Your task to perform on an android device: change the clock display to digital Image 0: 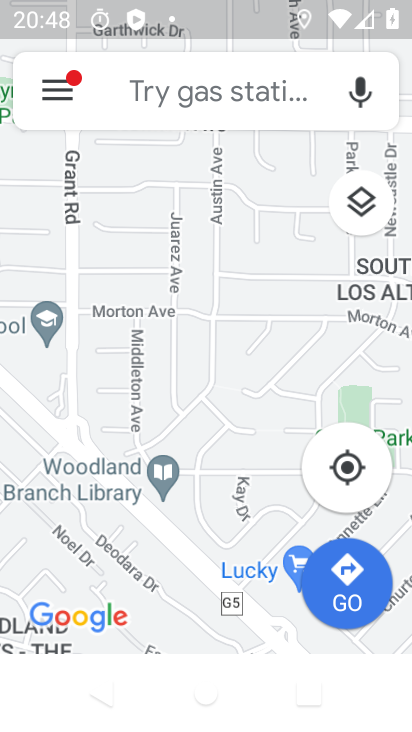
Step 0: press home button
Your task to perform on an android device: change the clock display to digital Image 1: 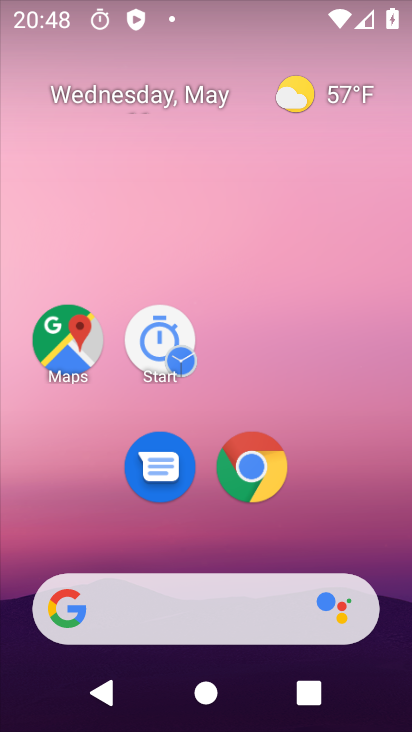
Step 1: drag from (287, 507) to (118, 0)
Your task to perform on an android device: change the clock display to digital Image 2: 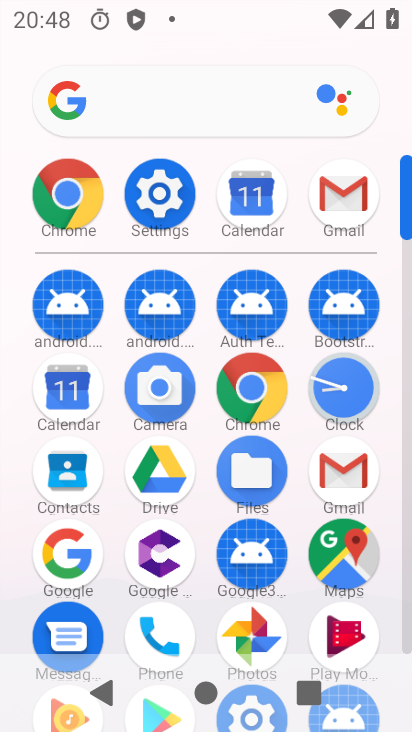
Step 2: click (342, 380)
Your task to perform on an android device: change the clock display to digital Image 3: 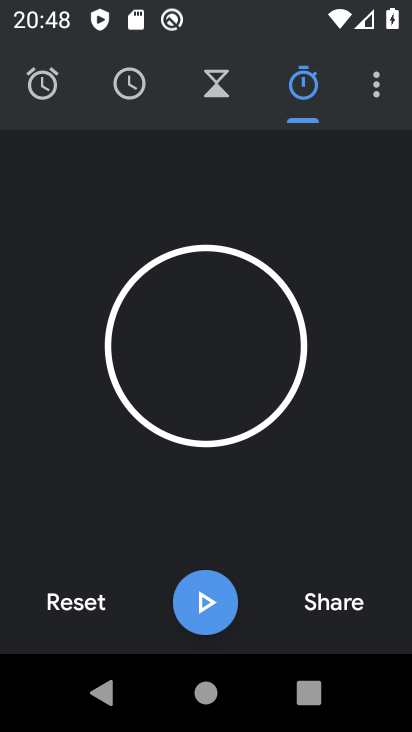
Step 3: click (371, 85)
Your task to perform on an android device: change the clock display to digital Image 4: 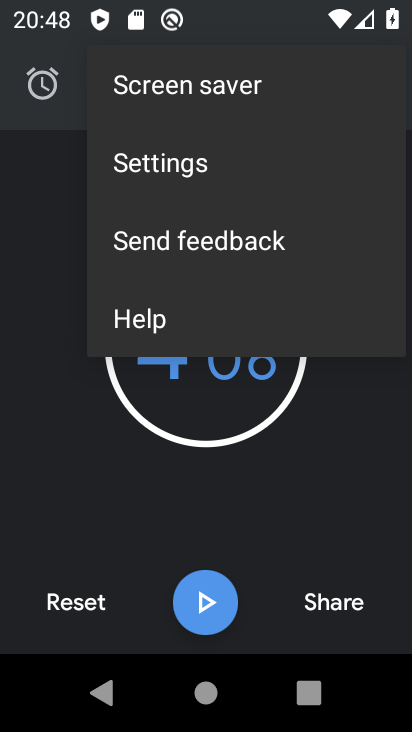
Step 4: click (170, 174)
Your task to perform on an android device: change the clock display to digital Image 5: 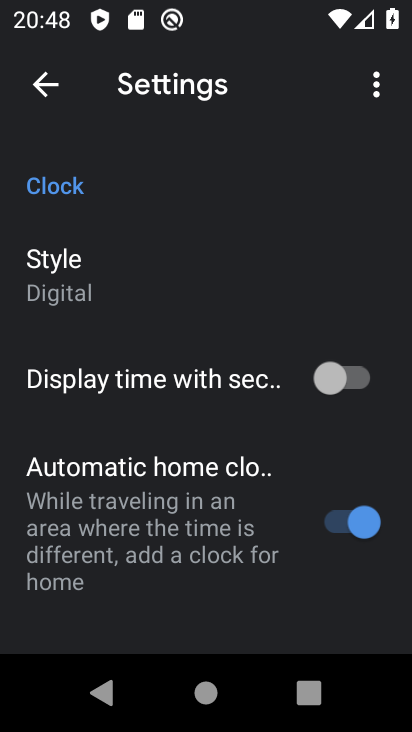
Step 5: task complete